Your task to perform on an android device: change text size in settings app Image 0: 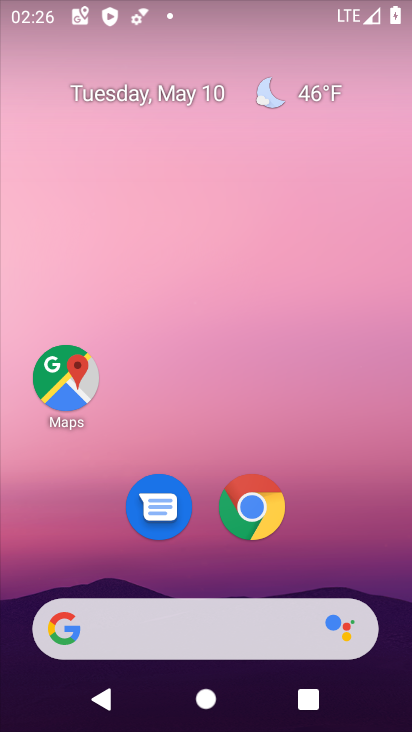
Step 0: drag from (339, 613) to (376, 169)
Your task to perform on an android device: change text size in settings app Image 1: 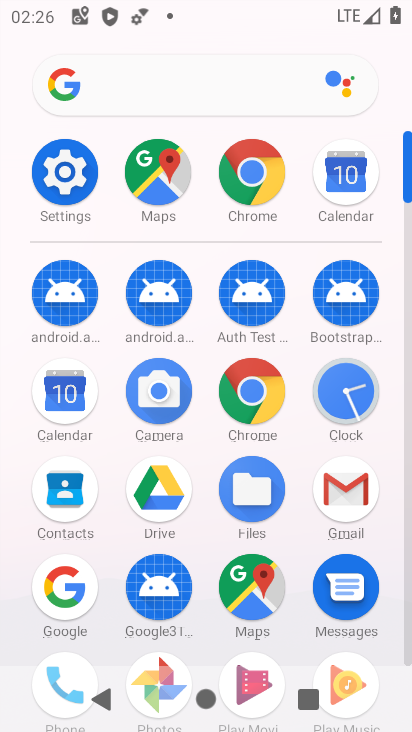
Step 1: click (65, 194)
Your task to perform on an android device: change text size in settings app Image 2: 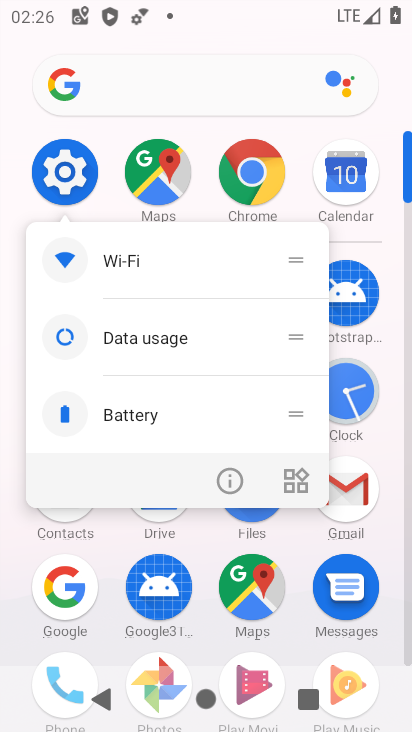
Step 2: click (72, 180)
Your task to perform on an android device: change text size in settings app Image 3: 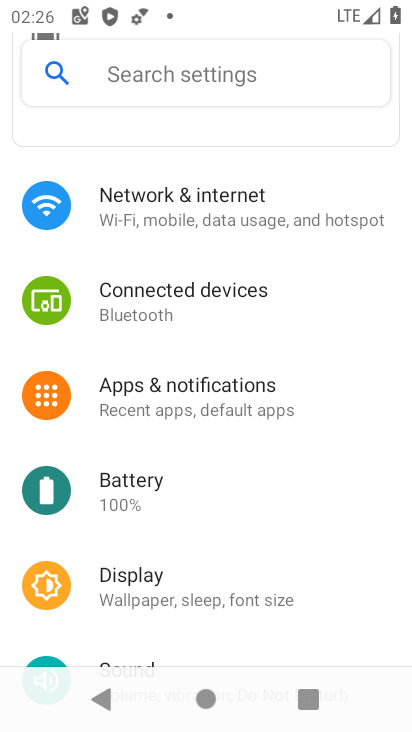
Step 3: click (155, 83)
Your task to perform on an android device: change text size in settings app Image 4: 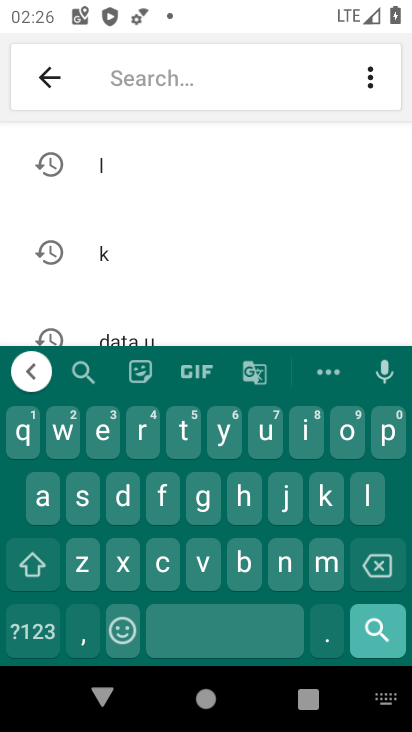
Step 4: click (83, 496)
Your task to perform on an android device: change text size in settings app Image 5: 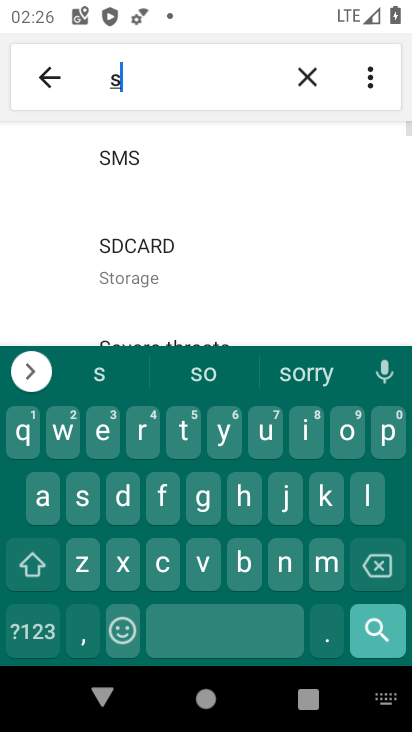
Step 5: click (309, 427)
Your task to perform on an android device: change text size in settings app Image 6: 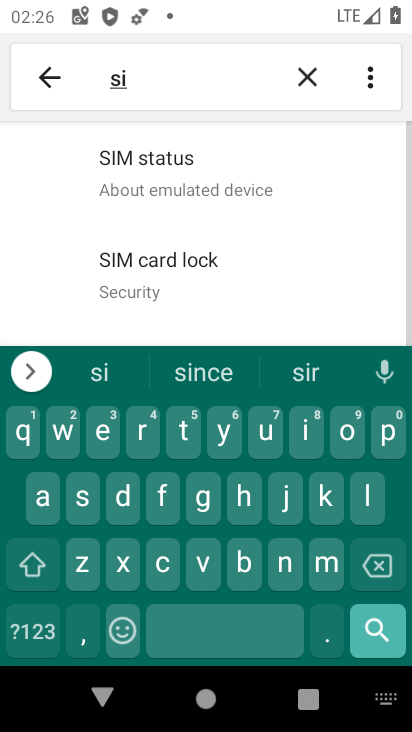
Step 6: click (84, 562)
Your task to perform on an android device: change text size in settings app Image 7: 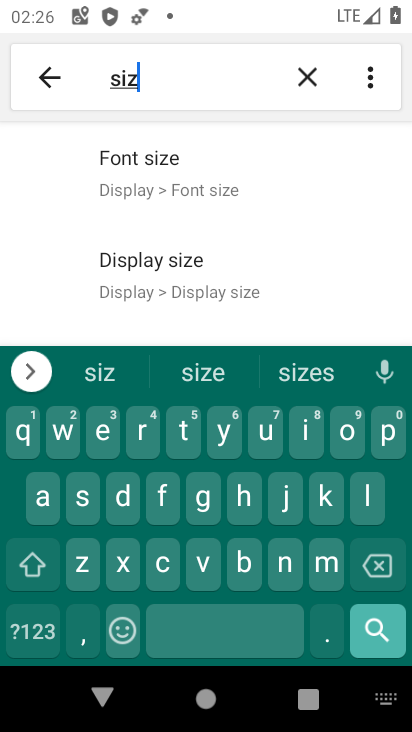
Step 7: click (156, 198)
Your task to perform on an android device: change text size in settings app Image 8: 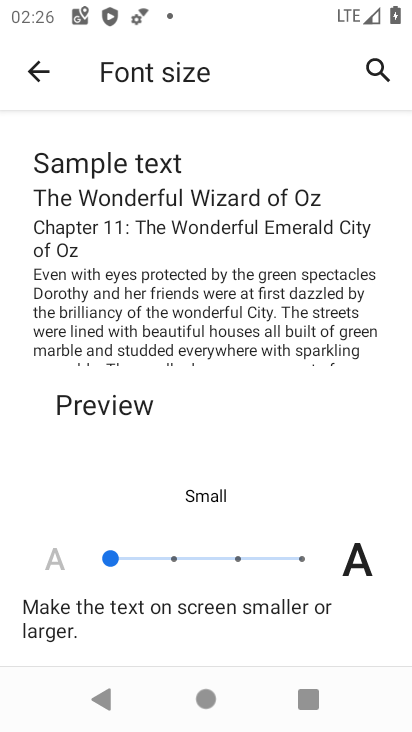
Step 8: click (166, 559)
Your task to perform on an android device: change text size in settings app Image 9: 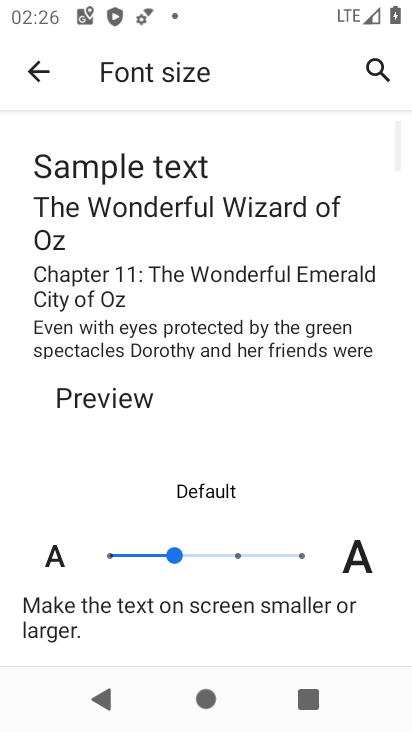
Step 9: task complete